Your task to perform on an android device: open chrome privacy settings Image 0: 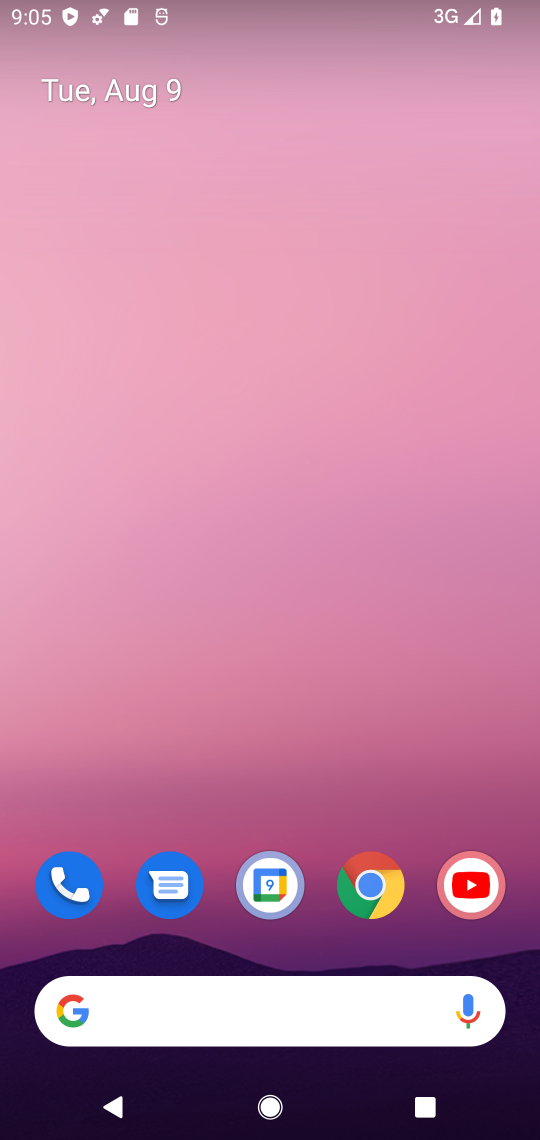
Step 0: press home button
Your task to perform on an android device: open chrome privacy settings Image 1: 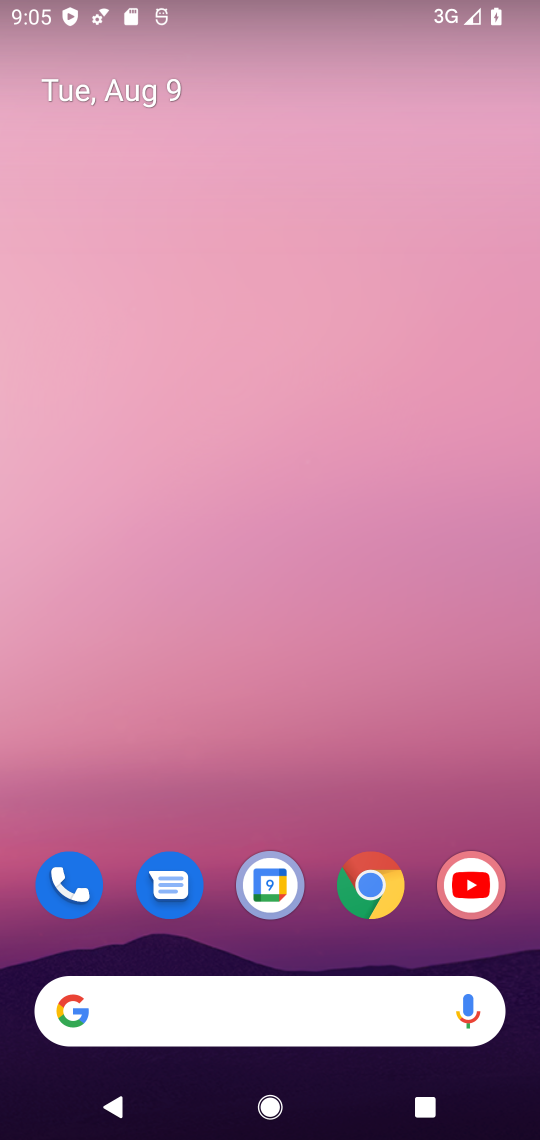
Step 1: drag from (319, 949) to (373, 223)
Your task to perform on an android device: open chrome privacy settings Image 2: 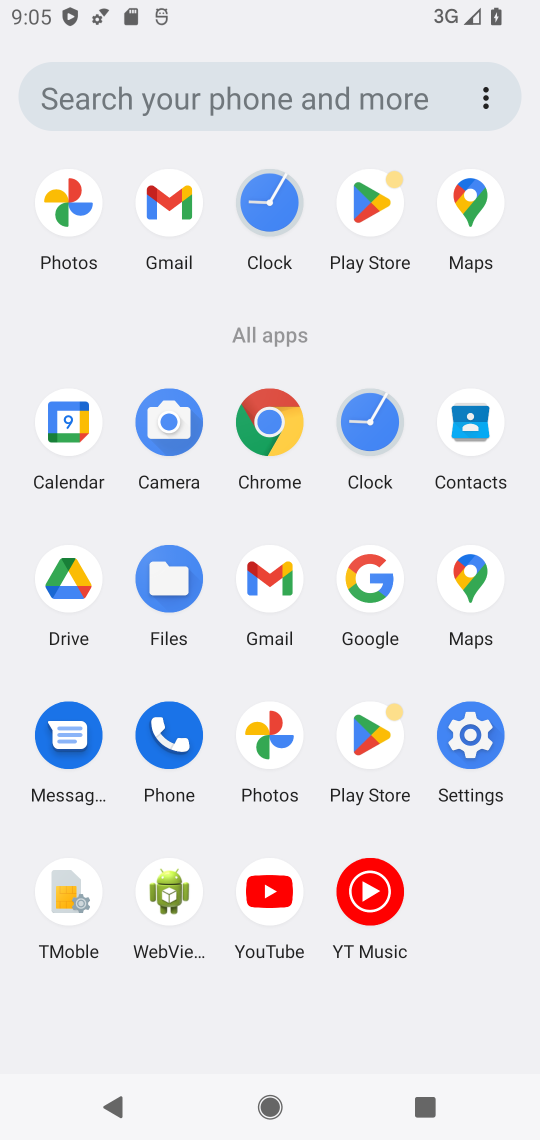
Step 2: click (266, 419)
Your task to perform on an android device: open chrome privacy settings Image 3: 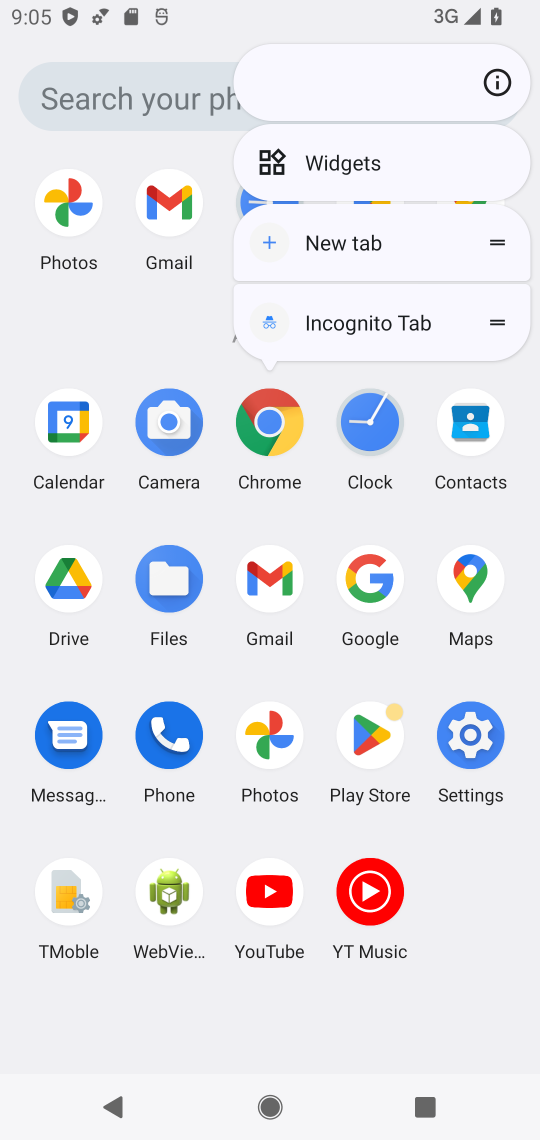
Step 3: click (264, 415)
Your task to perform on an android device: open chrome privacy settings Image 4: 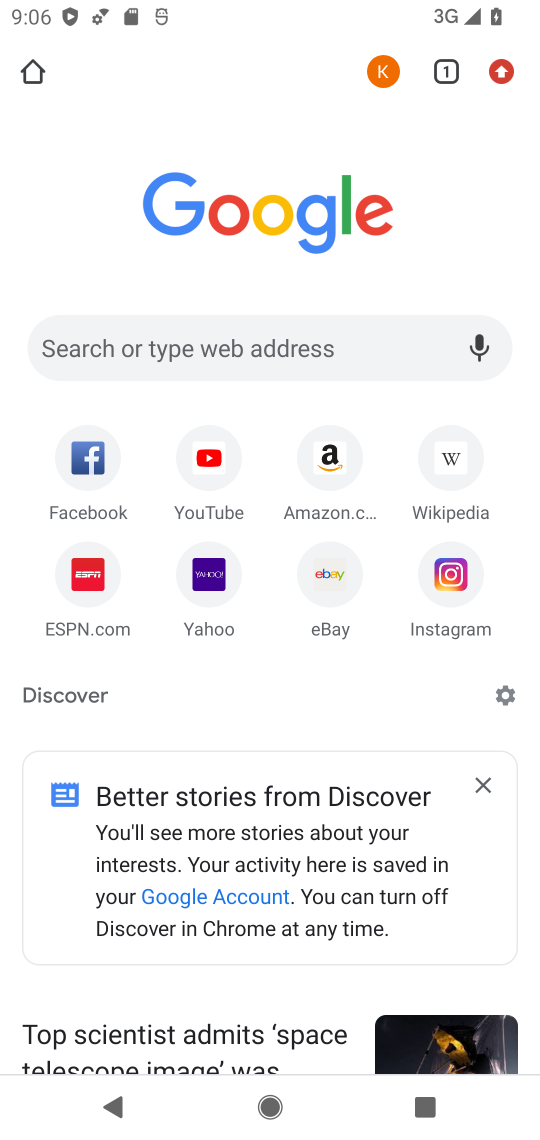
Step 4: click (505, 81)
Your task to perform on an android device: open chrome privacy settings Image 5: 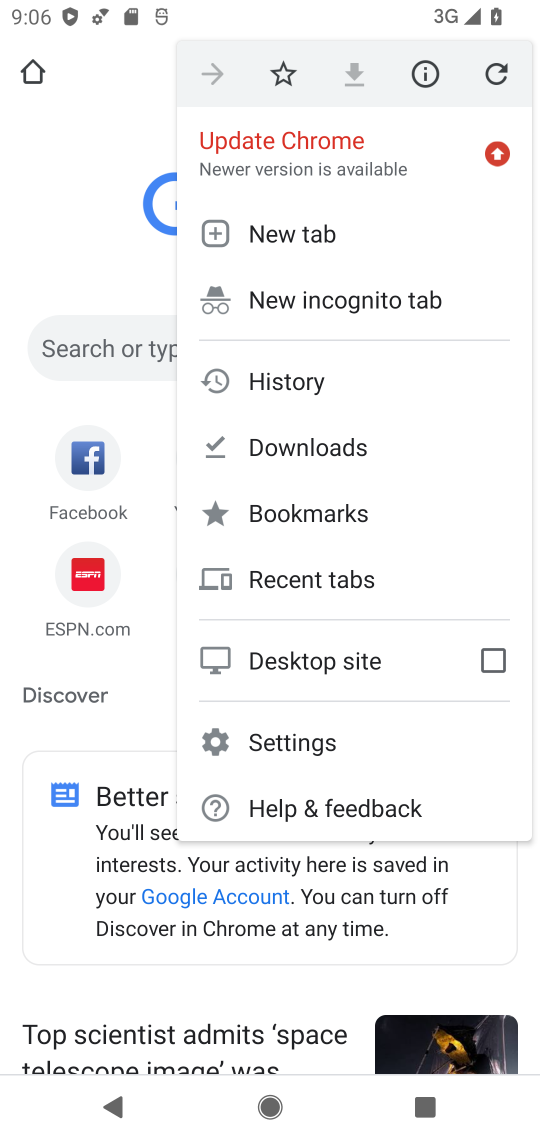
Step 5: click (344, 741)
Your task to perform on an android device: open chrome privacy settings Image 6: 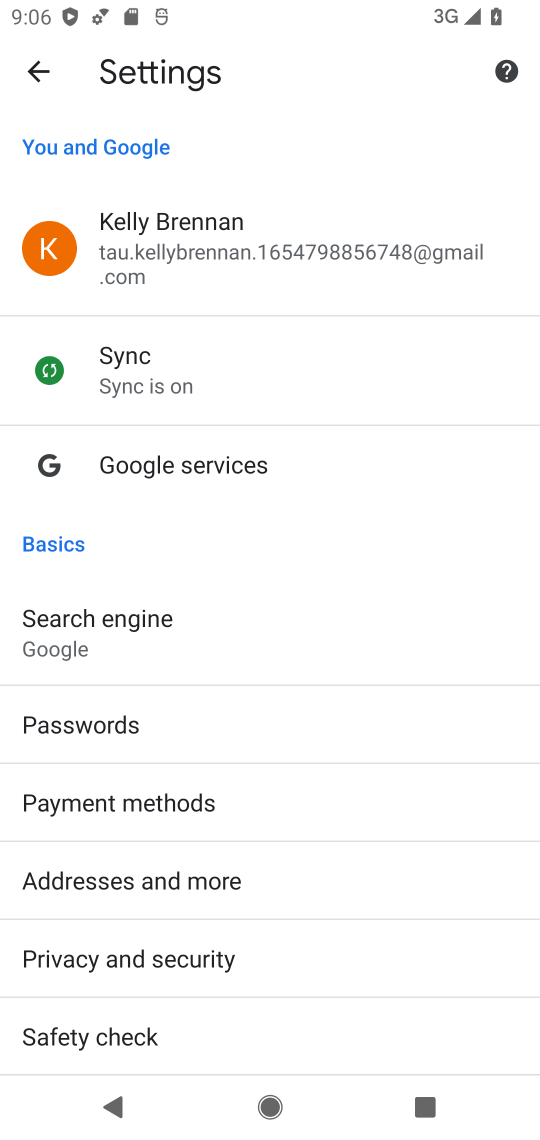
Step 6: drag from (262, 1036) to (262, 286)
Your task to perform on an android device: open chrome privacy settings Image 7: 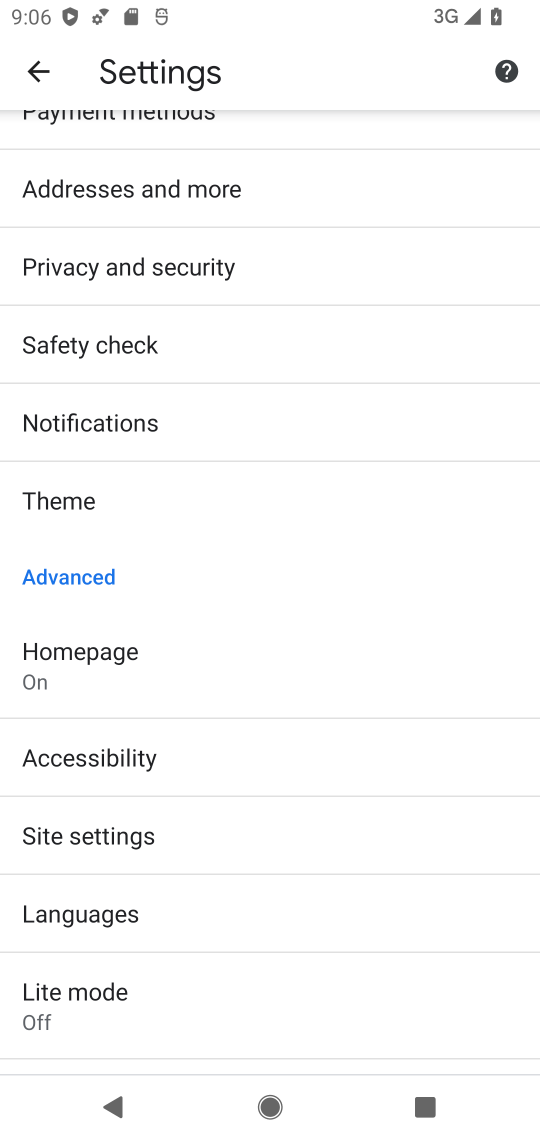
Step 7: click (227, 274)
Your task to perform on an android device: open chrome privacy settings Image 8: 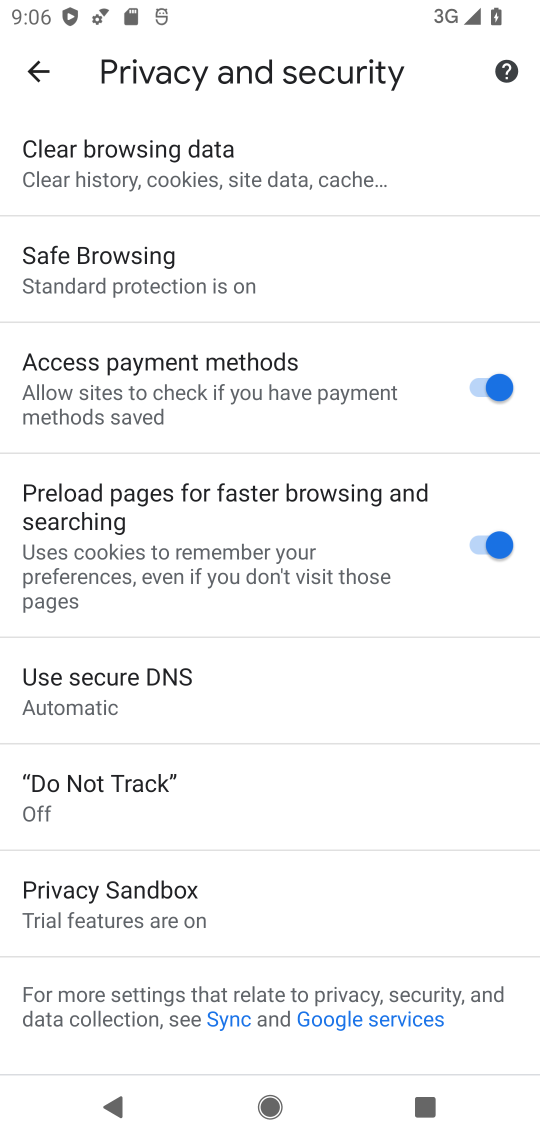
Step 8: task complete